Your task to perform on an android device: turn off wifi Image 0: 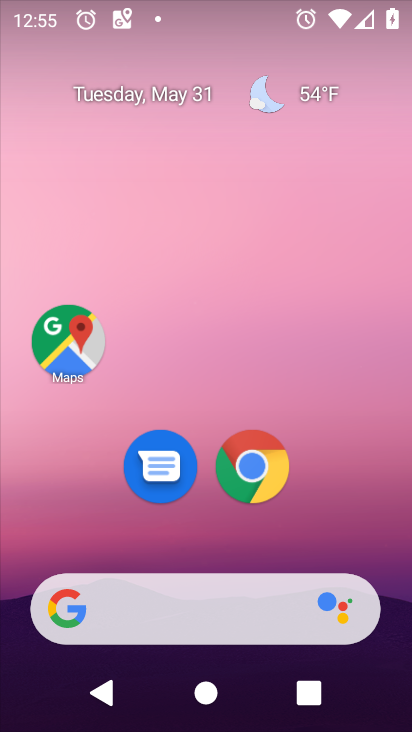
Step 0: drag from (184, 629) to (199, 175)
Your task to perform on an android device: turn off wifi Image 1: 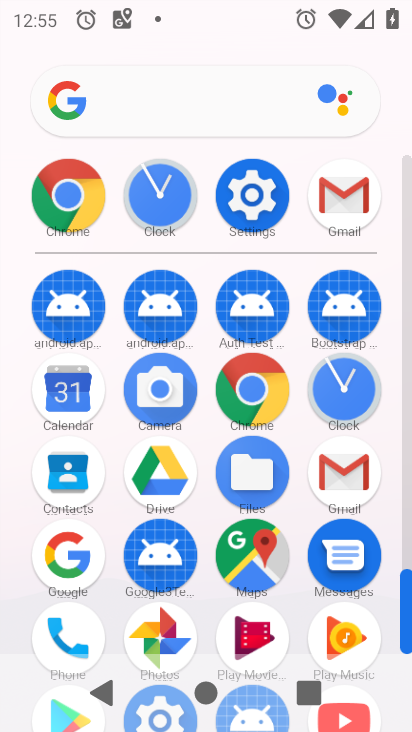
Step 1: click (269, 213)
Your task to perform on an android device: turn off wifi Image 2: 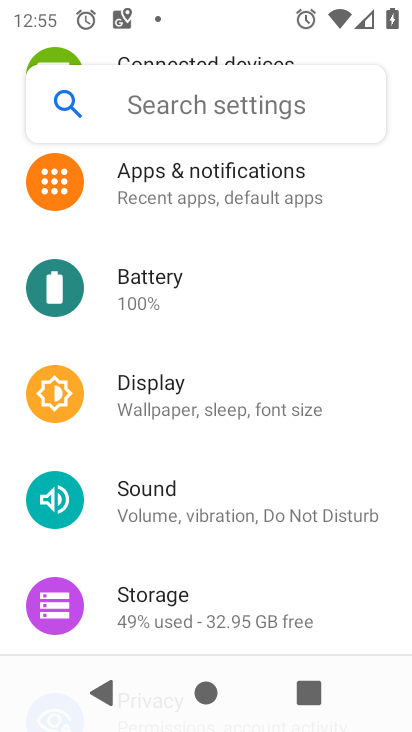
Step 2: drag from (128, 304) to (144, 706)
Your task to perform on an android device: turn off wifi Image 3: 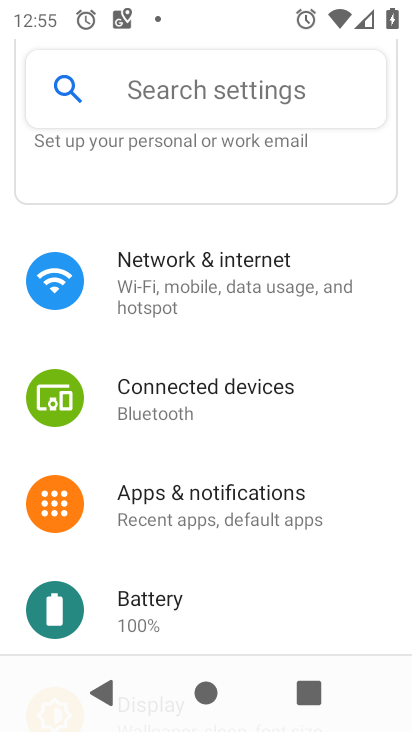
Step 3: click (134, 302)
Your task to perform on an android device: turn off wifi Image 4: 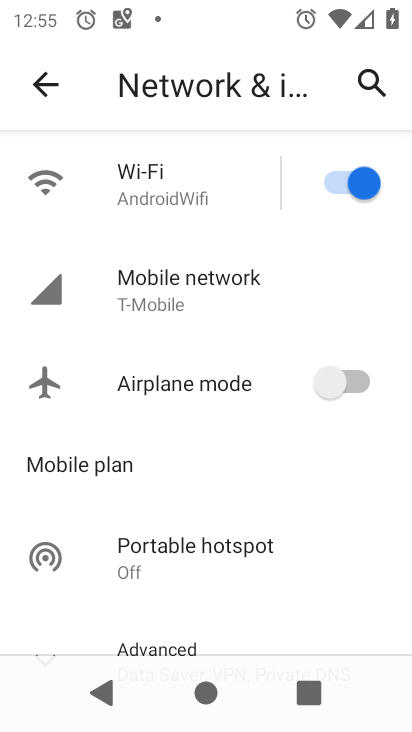
Step 4: click (362, 190)
Your task to perform on an android device: turn off wifi Image 5: 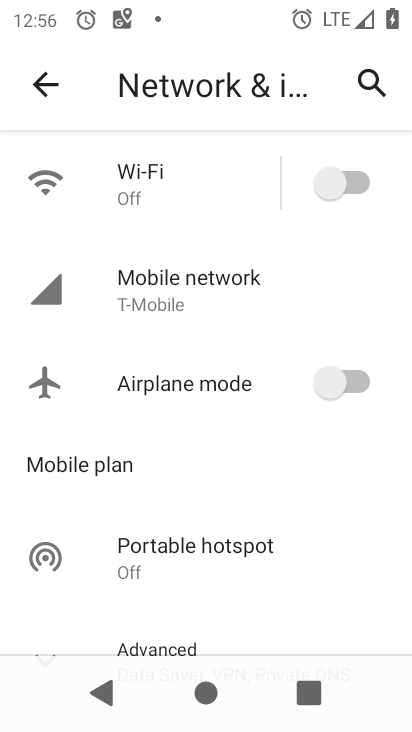
Step 5: task complete